Your task to perform on an android device: turn on airplane mode Image 0: 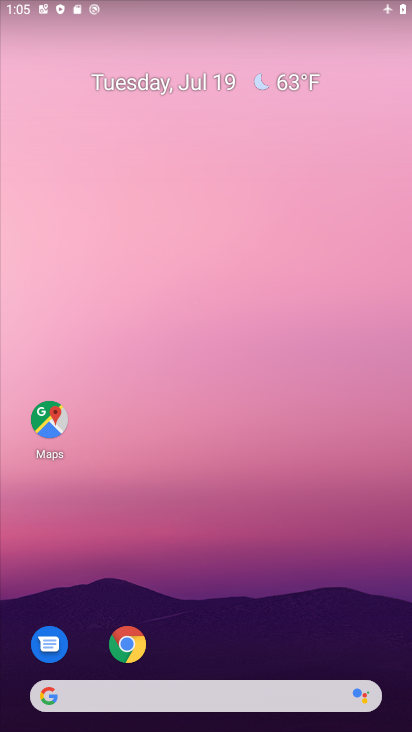
Step 0: drag from (221, 719) to (217, 144)
Your task to perform on an android device: turn on airplane mode Image 1: 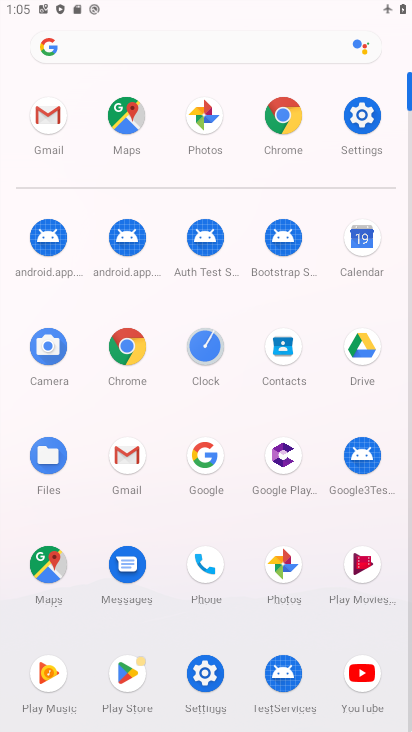
Step 1: click (364, 115)
Your task to perform on an android device: turn on airplane mode Image 2: 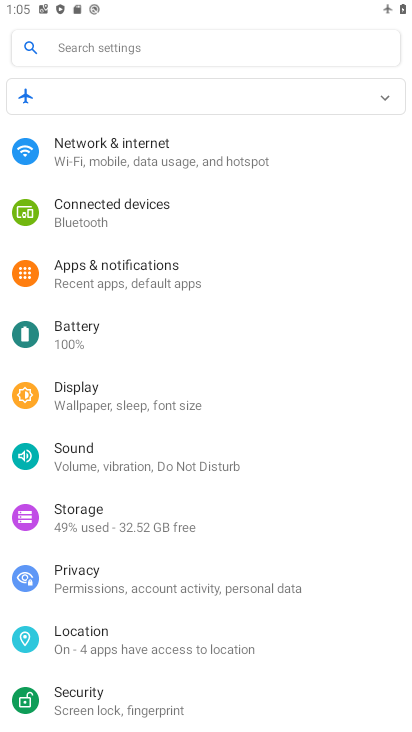
Step 2: click (103, 152)
Your task to perform on an android device: turn on airplane mode Image 3: 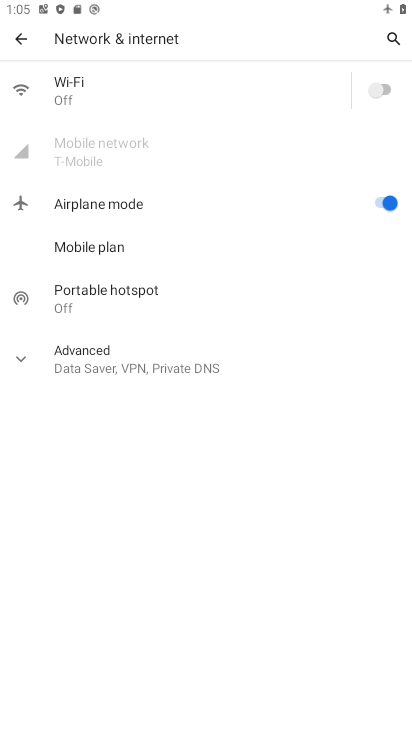
Step 3: task complete